Your task to perform on an android device: toggle show notifications on the lock screen Image 0: 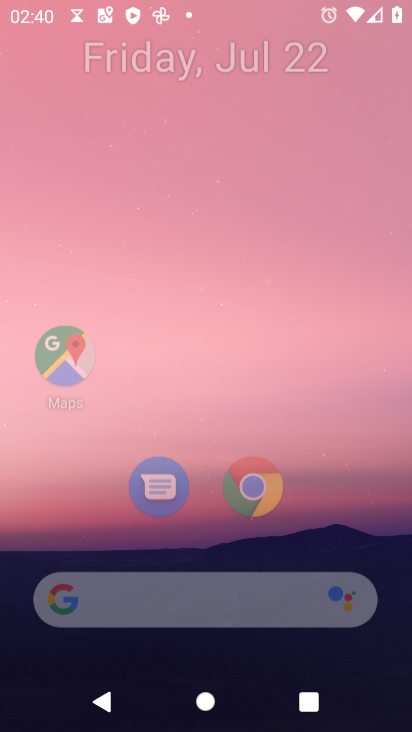
Step 0: press home button
Your task to perform on an android device: toggle show notifications on the lock screen Image 1: 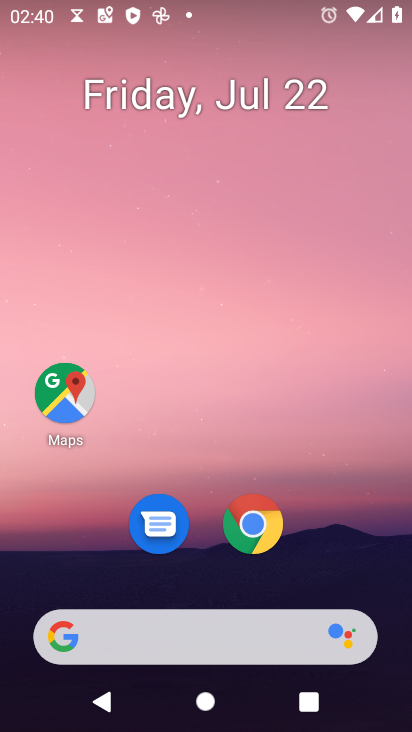
Step 1: drag from (191, 641) to (295, 136)
Your task to perform on an android device: toggle show notifications on the lock screen Image 2: 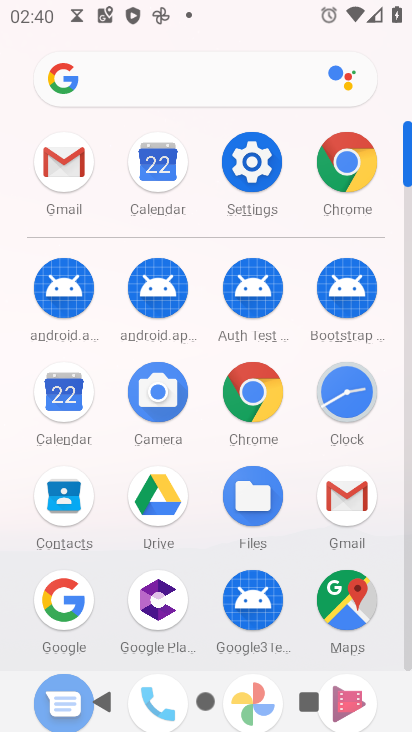
Step 2: click (244, 161)
Your task to perform on an android device: toggle show notifications on the lock screen Image 3: 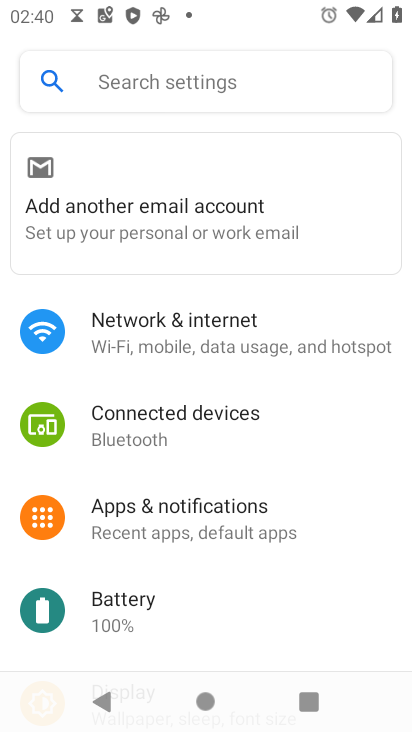
Step 3: click (201, 513)
Your task to perform on an android device: toggle show notifications on the lock screen Image 4: 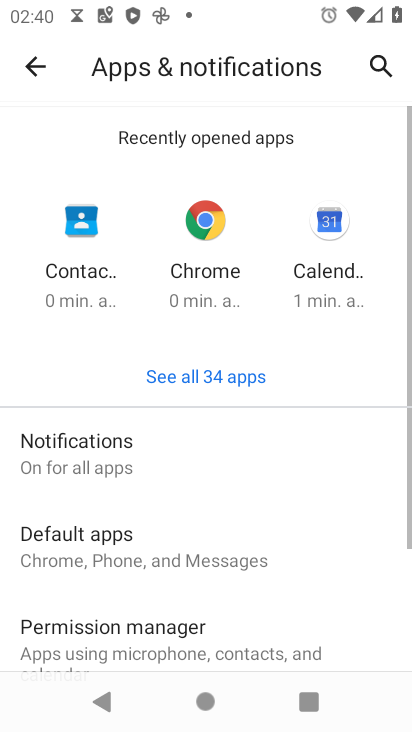
Step 4: click (70, 454)
Your task to perform on an android device: toggle show notifications on the lock screen Image 5: 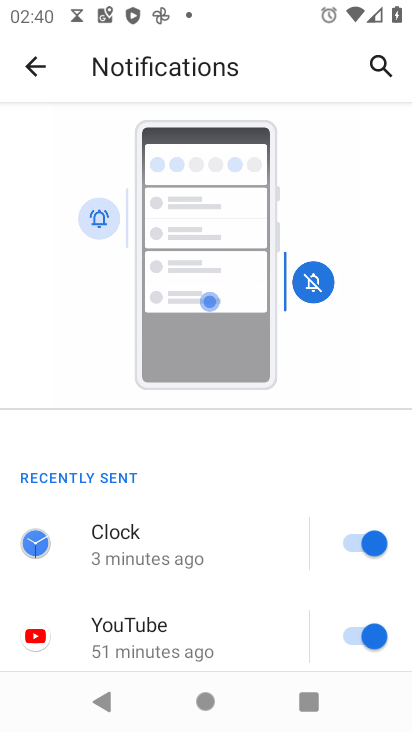
Step 5: drag from (218, 614) to (299, 102)
Your task to perform on an android device: toggle show notifications on the lock screen Image 6: 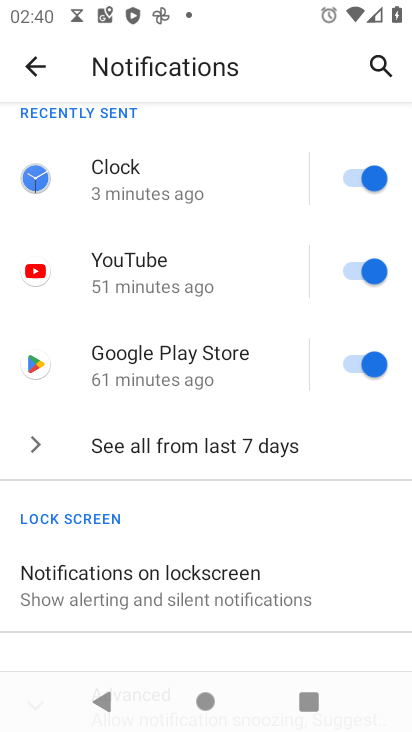
Step 6: drag from (239, 530) to (311, 129)
Your task to perform on an android device: toggle show notifications on the lock screen Image 7: 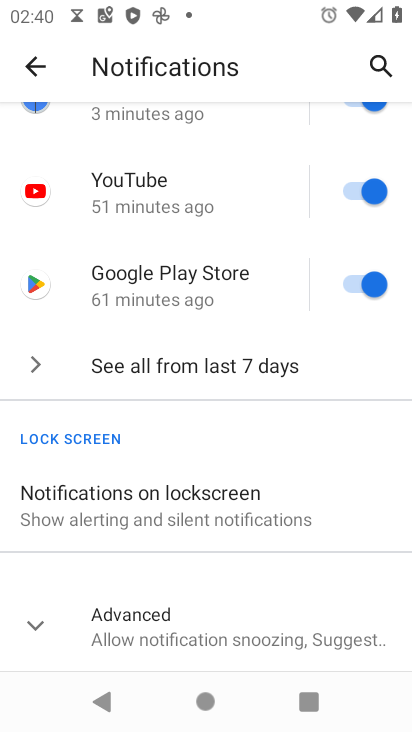
Step 7: click (146, 628)
Your task to perform on an android device: toggle show notifications on the lock screen Image 8: 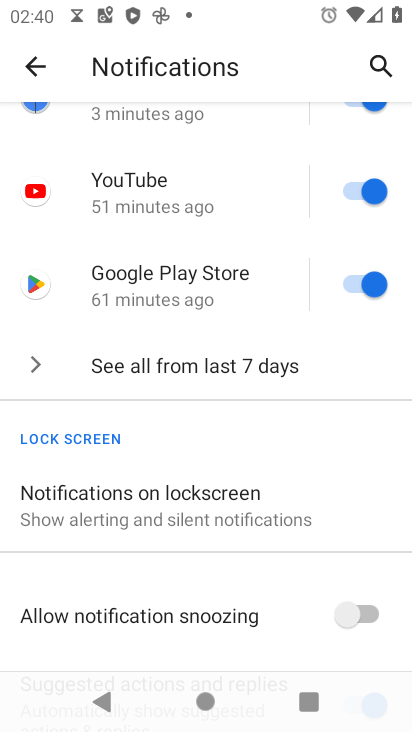
Step 8: drag from (220, 637) to (306, 148)
Your task to perform on an android device: toggle show notifications on the lock screen Image 9: 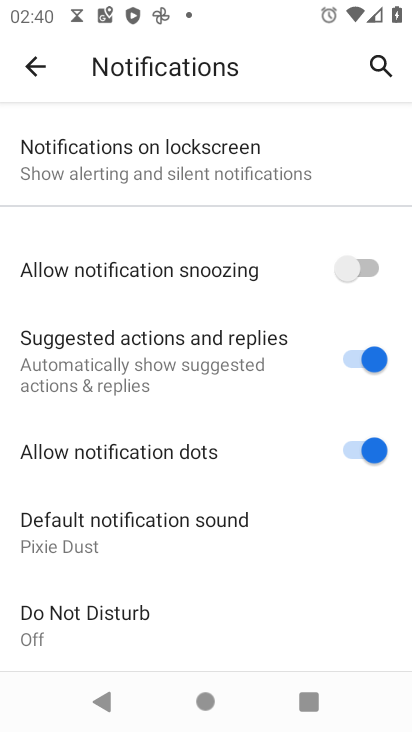
Step 9: click (211, 150)
Your task to perform on an android device: toggle show notifications on the lock screen Image 10: 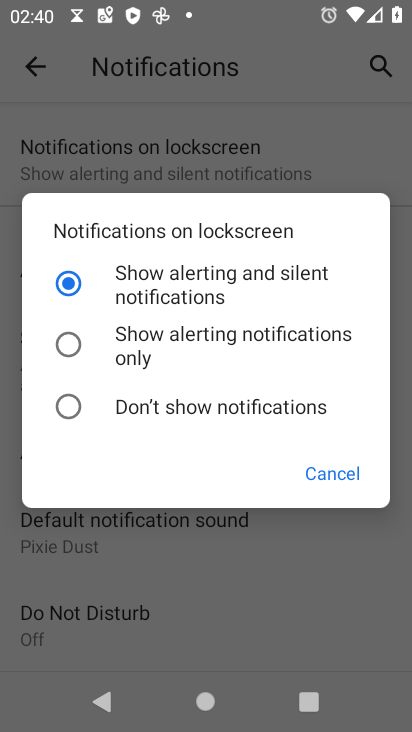
Step 10: click (71, 407)
Your task to perform on an android device: toggle show notifications on the lock screen Image 11: 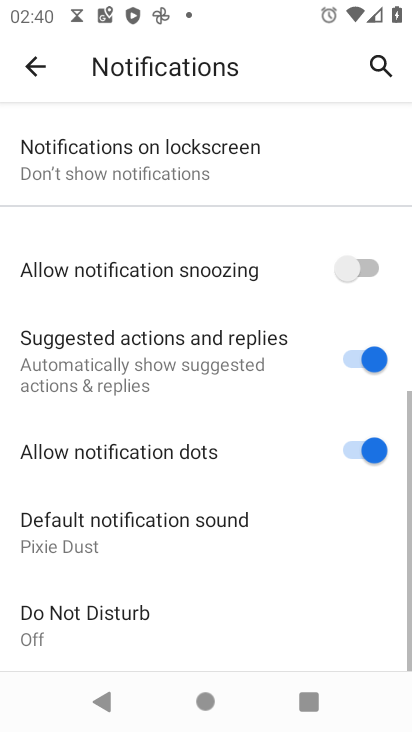
Step 11: task complete